Your task to perform on an android device: Open Yahoo.com Image 0: 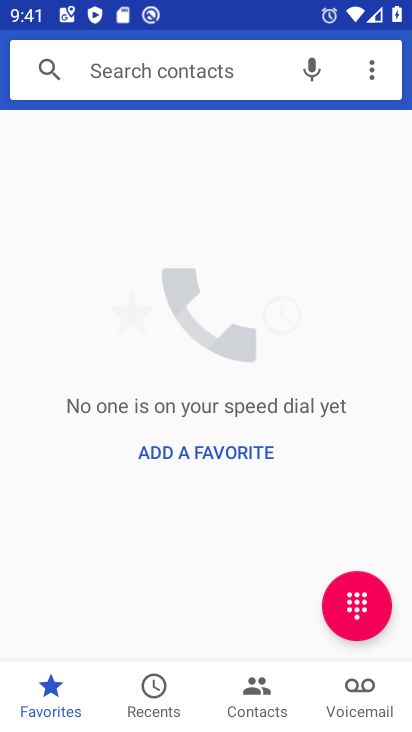
Step 0: press home button
Your task to perform on an android device: Open Yahoo.com Image 1: 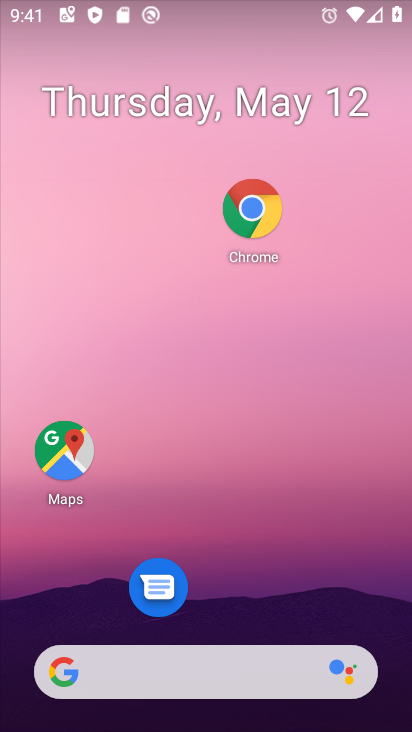
Step 1: drag from (284, 575) to (329, 221)
Your task to perform on an android device: Open Yahoo.com Image 2: 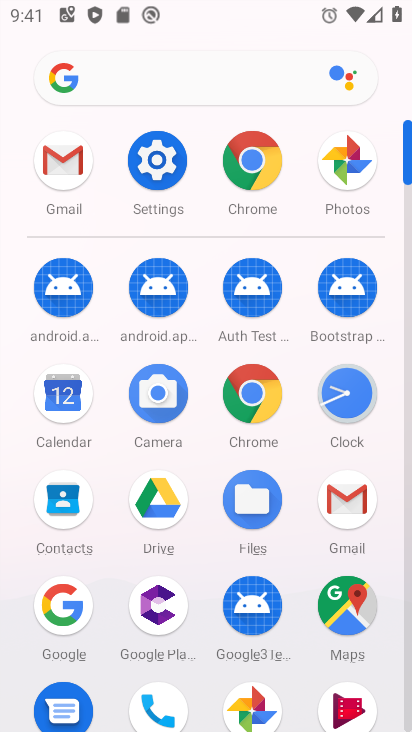
Step 2: click (262, 374)
Your task to perform on an android device: Open Yahoo.com Image 3: 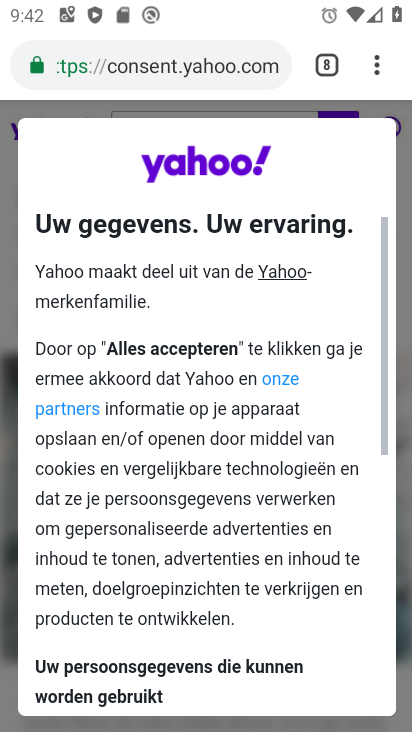
Step 3: click (359, 106)
Your task to perform on an android device: Open Yahoo.com Image 4: 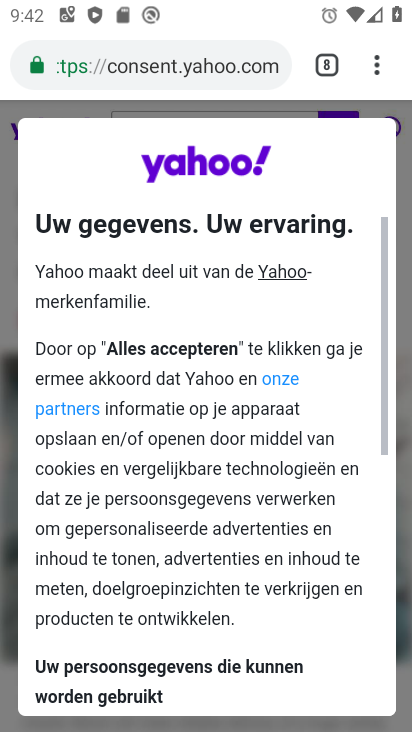
Step 4: press back button
Your task to perform on an android device: Open Yahoo.com Image 5: 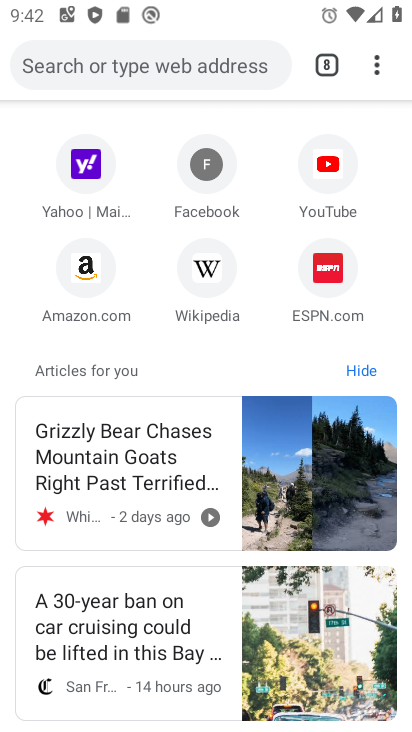
Step 5: click (82, 160)
Your task to perform on an android device: Open Yahoo.com Image 6: 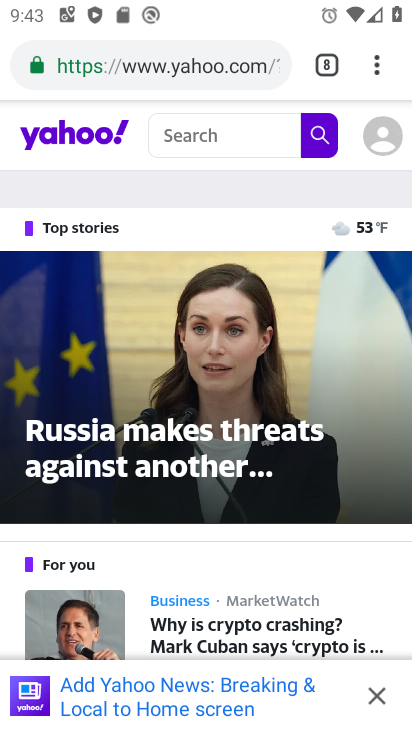
Step 6: task complete